Your task to perform on an android device: What is the news today? Image 0: 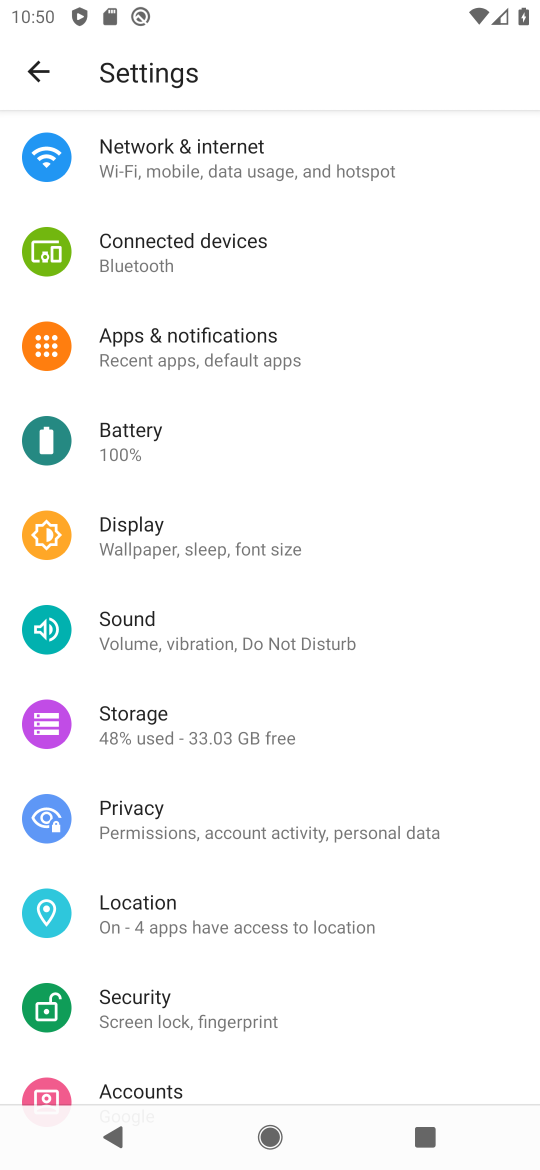
Step 0: press home button
Your task to perform on an android device: What is the news today? Image 1: 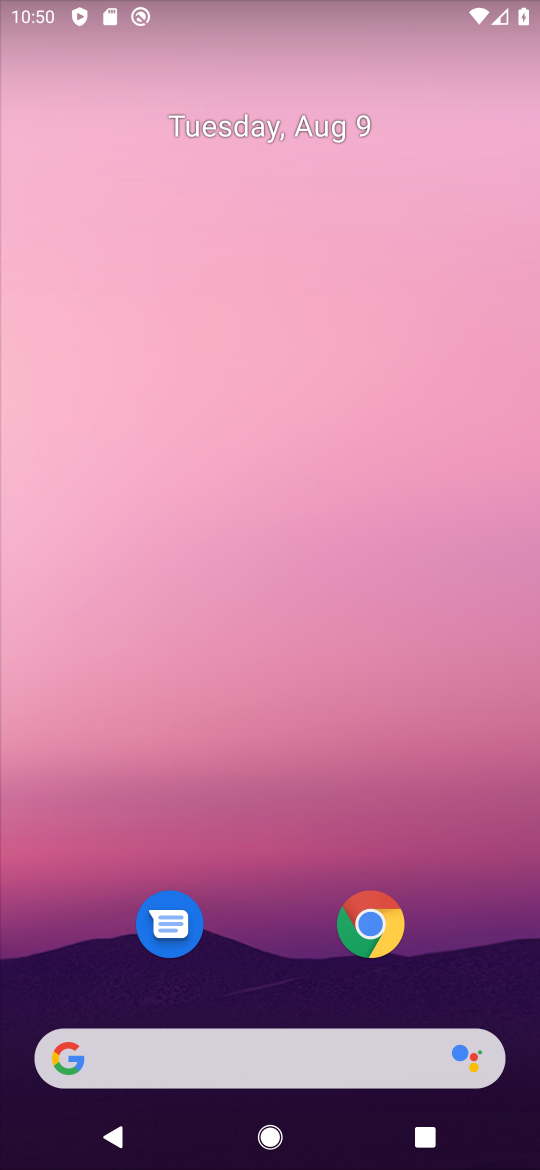
Step 1: drag from (232, 935) to (270, 62)
Your task to perform on an android device: What is the news today? Image 2: 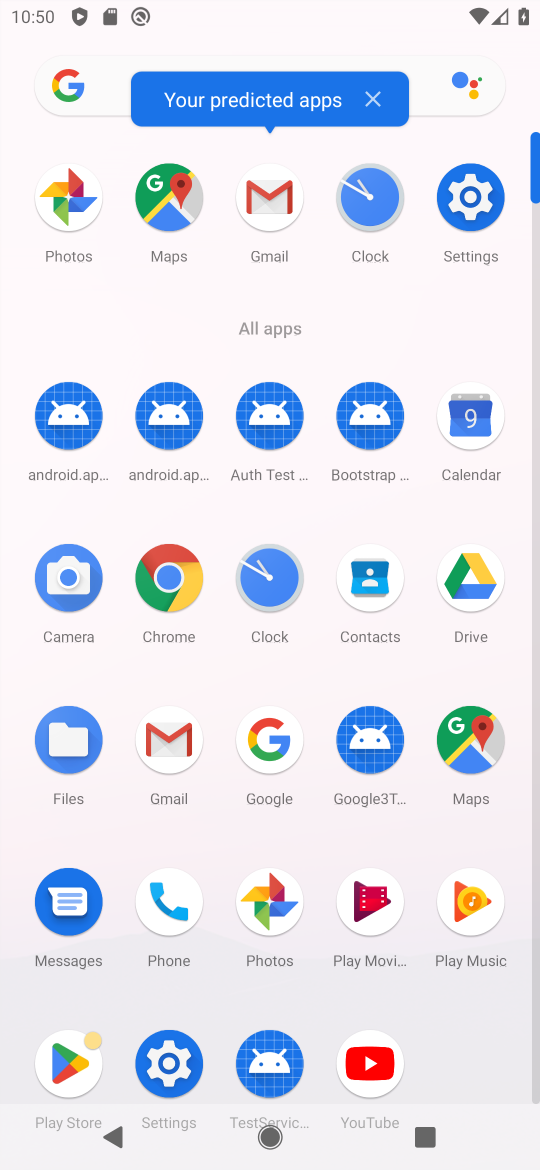
Step 2: click (162, 578)
Your task to perform on an android device: What is the news today? Image 3: 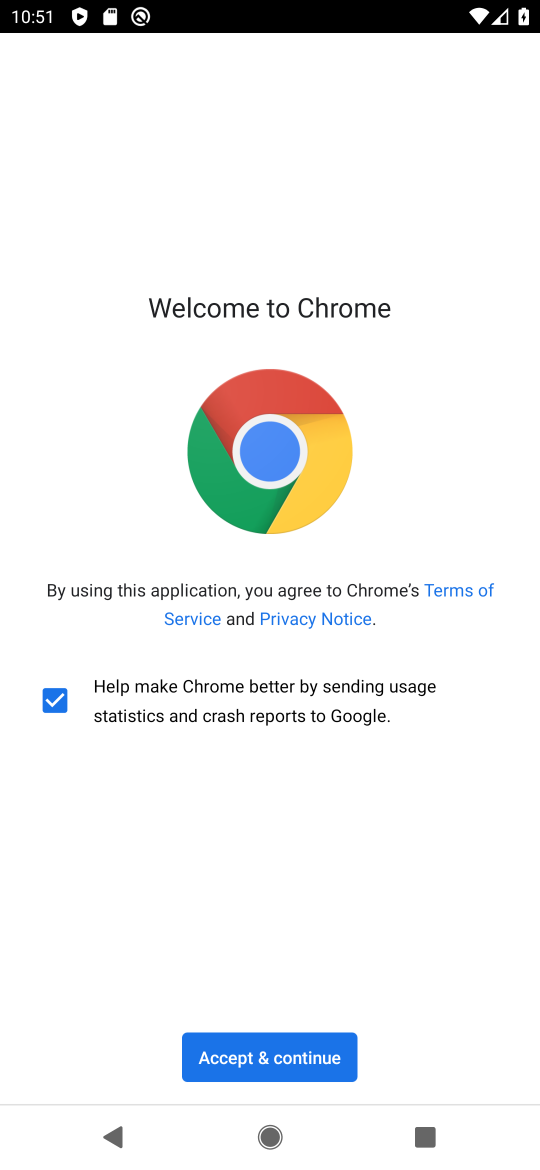
Step 3: click (305, 1047)
Your task to perform on an android device: What is the news today? Image 4: 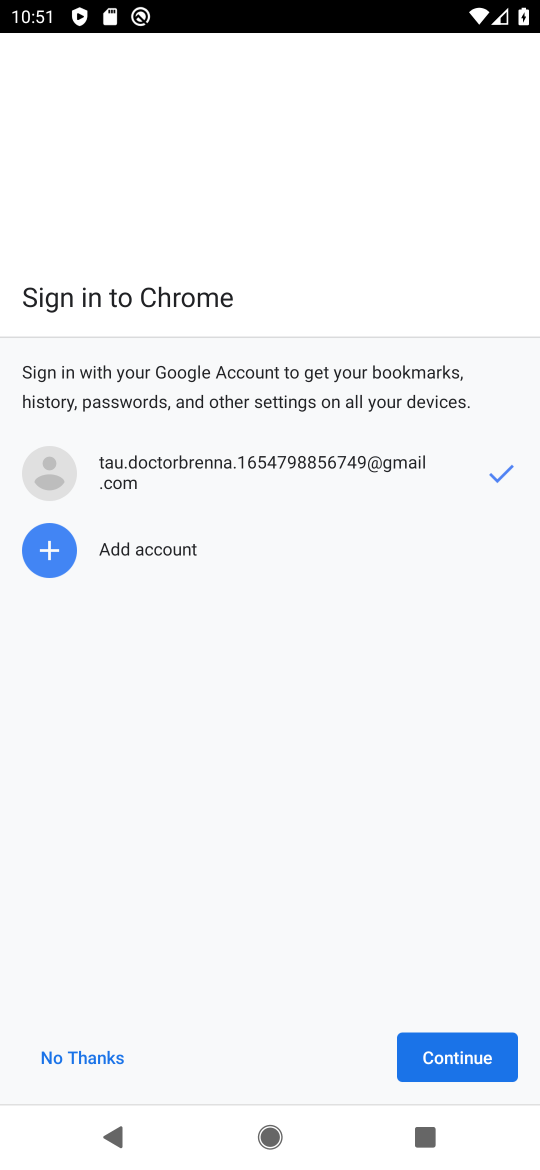
Step 4: click (446, 1062)
Your task to perform on an android device: What is the news today? Image 5: 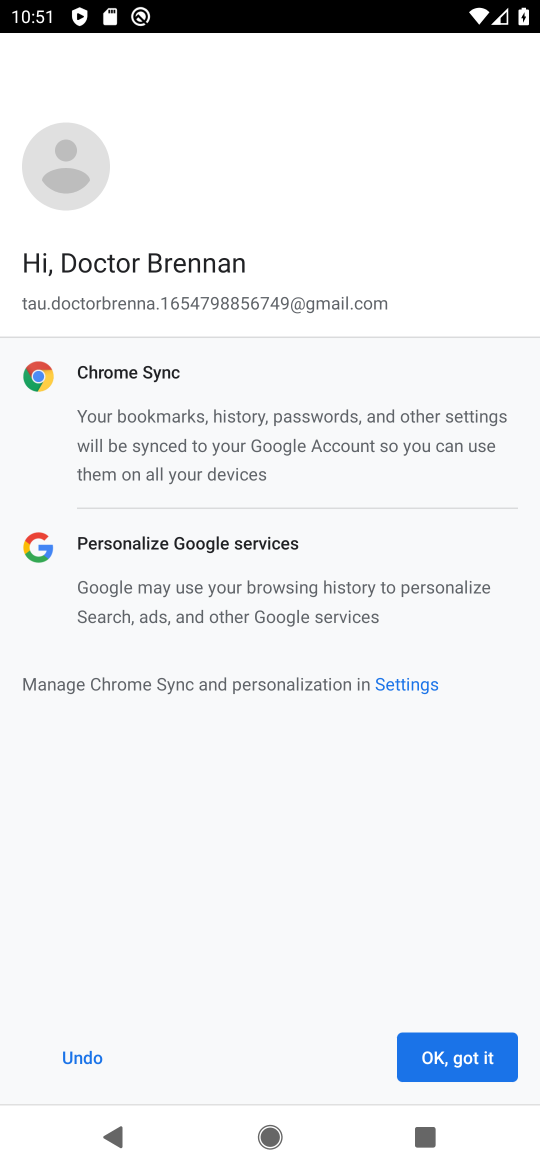
Step 5: click (446, 1062)
Your task to perform on an android device: What is the news today? Image 6: 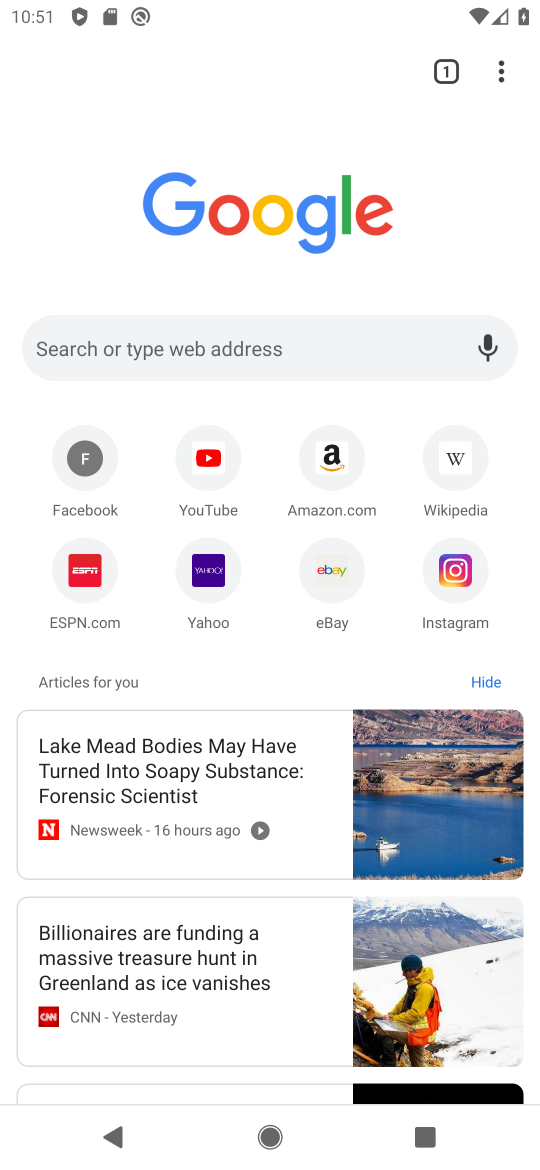
Step 6: click (255, 332)
Your task to perform on an android device: What is the news today? Image 7: 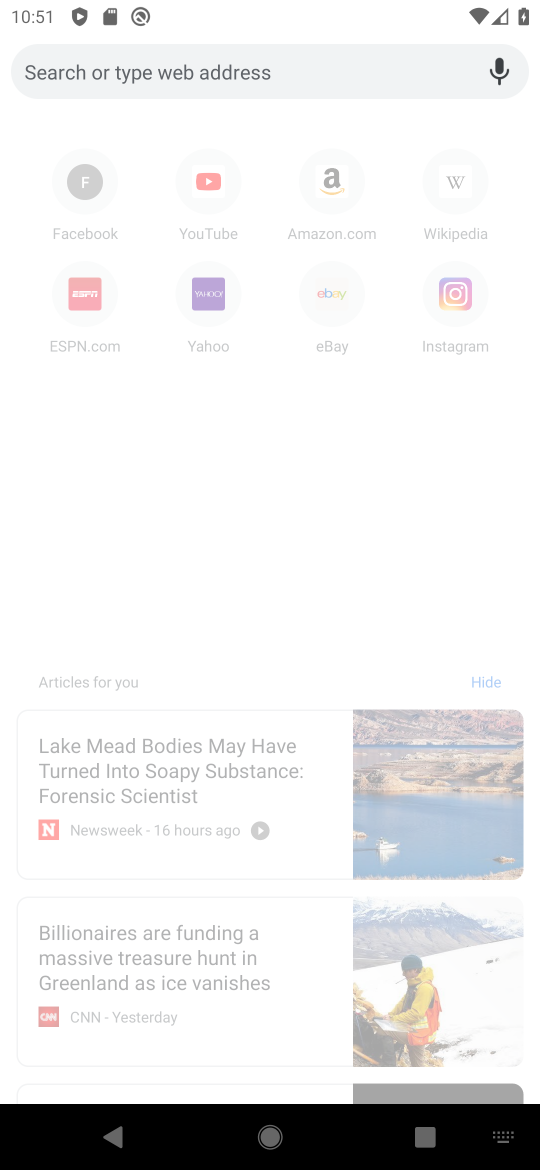
Step 7: type "What is the news today?"
Your task to perform on an android device: What is the news today? Image 8: 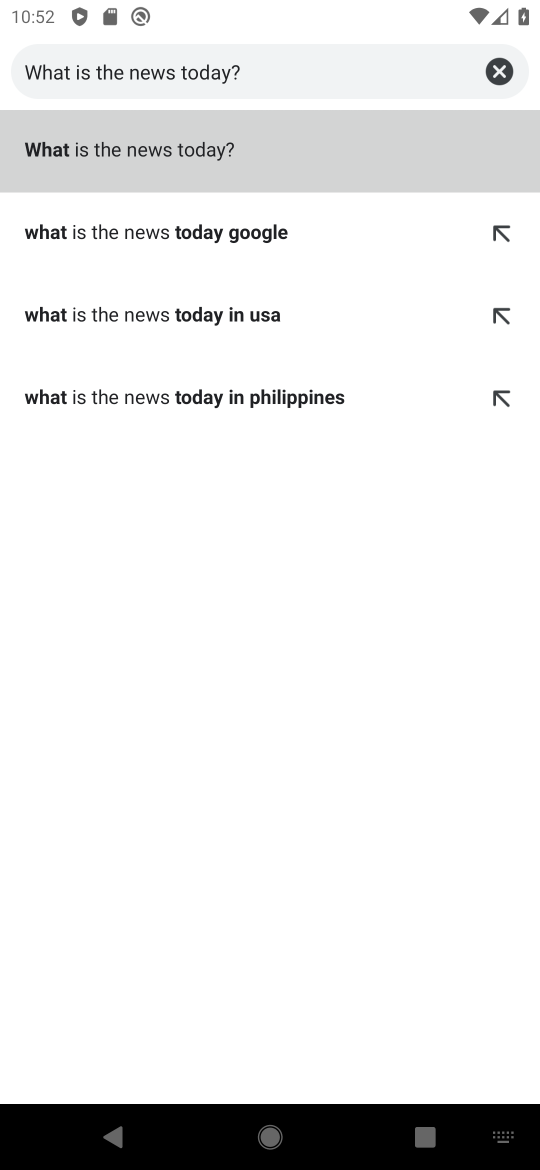
Step 8: click (103, 131)
Your task to perform on an android device: What is the news today? Image 9: 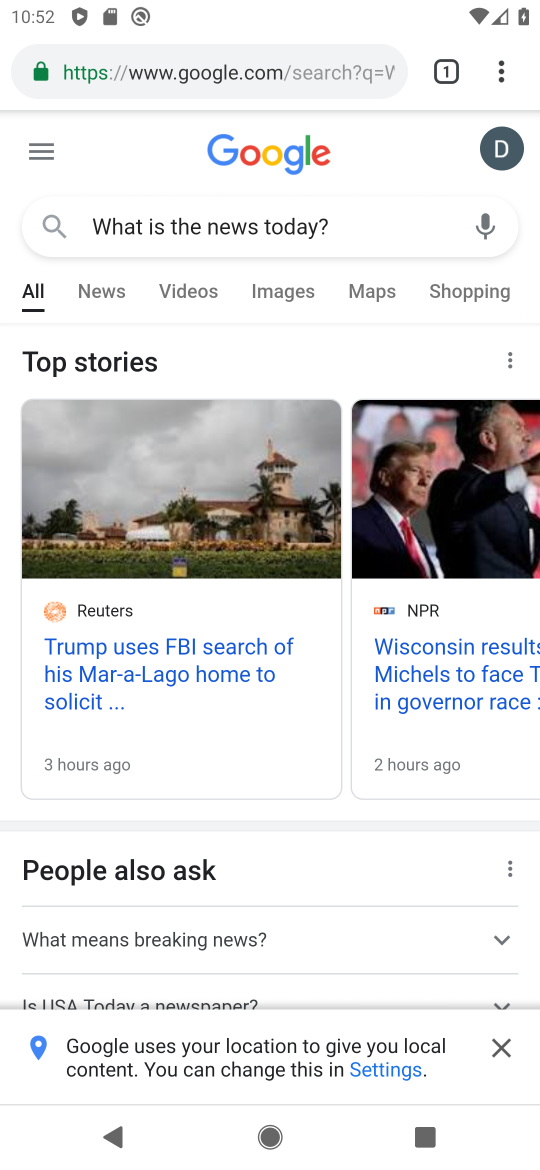
Step 9: click (82, 284)
Your task to perform on an android device: What is the news today? Image 10: 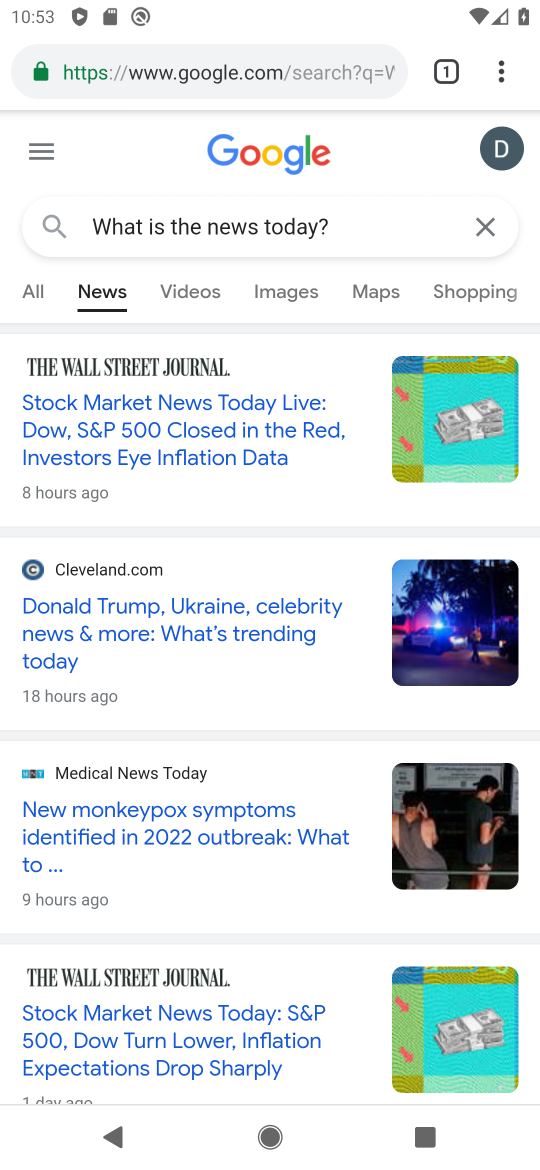
Step 10: task complete